Your task to perform on an android device: Open the map Image 0: 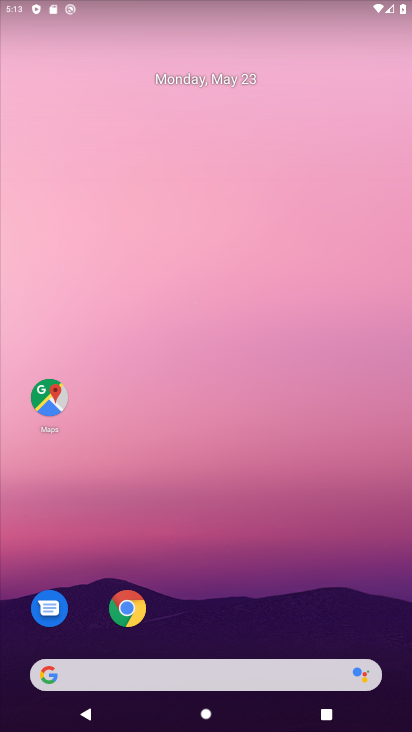
Step 0: click (43, 403)
Your task to perform on an android device: Open the map Image 1: 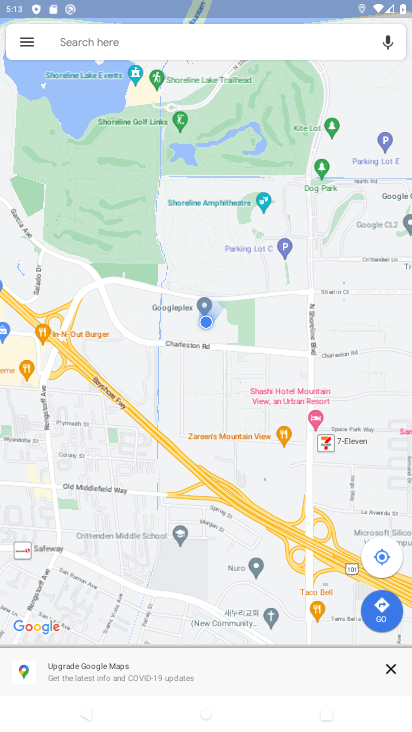
Step 1: task complete